Your task to perform on an android device: Open location settings Image 0: 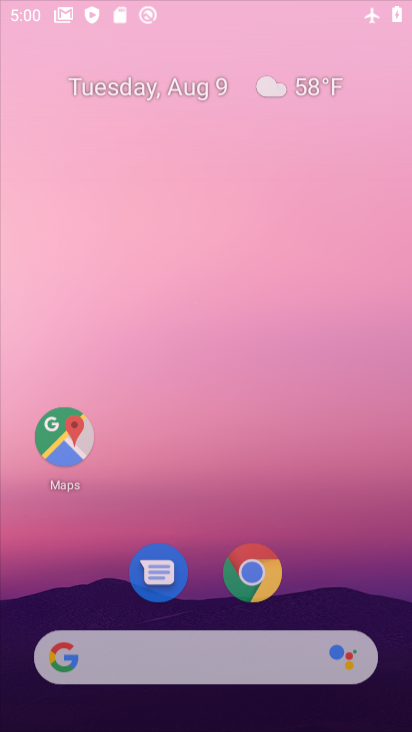
Step 0: press back button
Your task to perform on an android device: Open location settings Image 1: 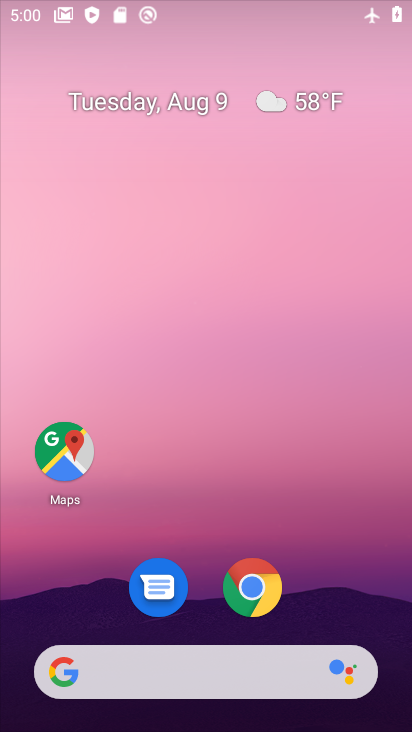
Step 1: click (158, 99)
Your task to perform on an android device: Open location settings Image 2: 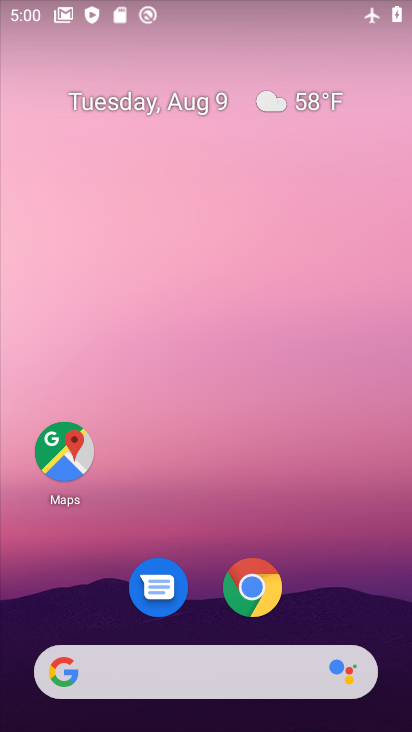
Step 2: drag from (234, 581) to (226, 227)
Your task to perform on an android device: Open location settings Image 3: 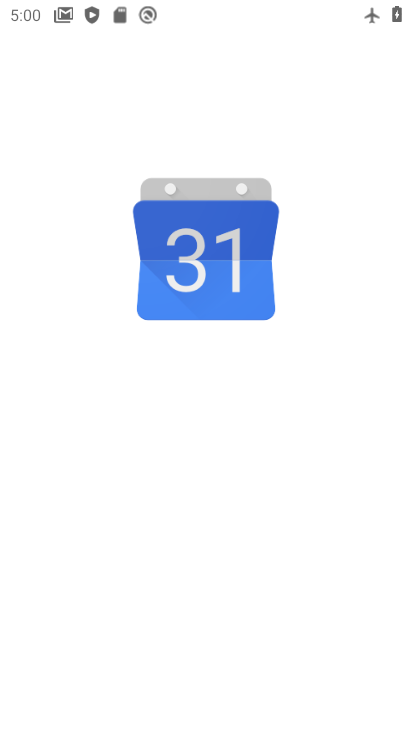
Step 3: drag from (244, 541) to (237, 117)
Your task to perform on an android device: Open location settings Image 4: 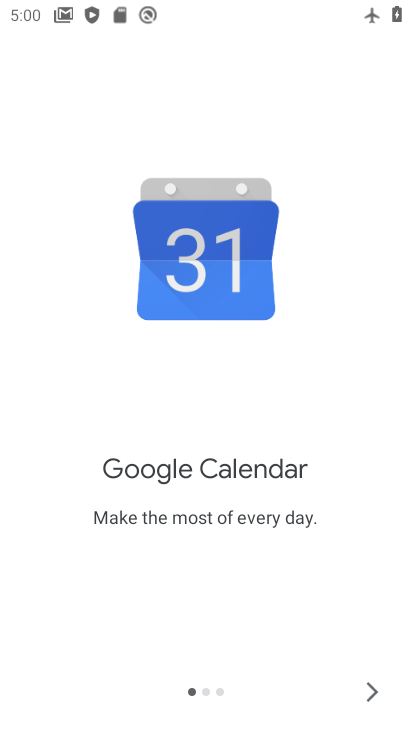
Step 4: press back button
Your task to perform on an android device: Open location settings Image 5: 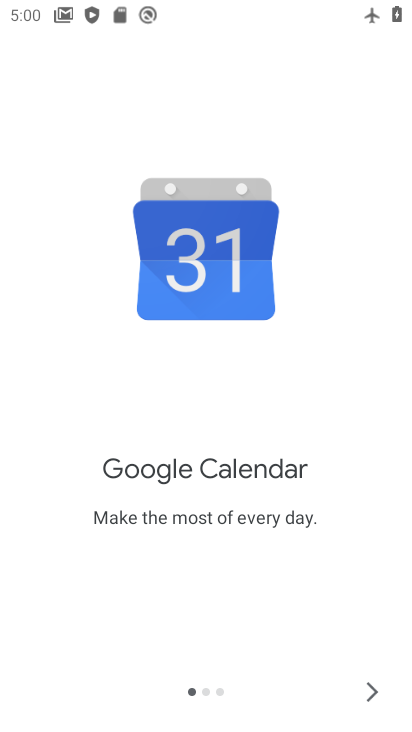
Step 5: press back button
Your task to perform on an android device: Open location settings Image 6: 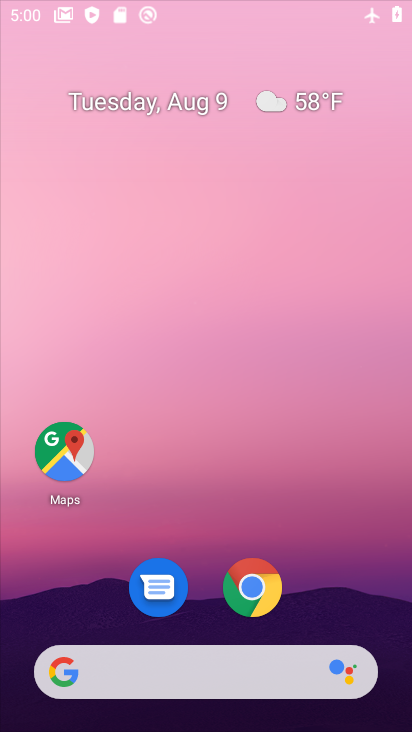
Step 6: press back button
Your task to perform on an android device: Open location settings Image 7: 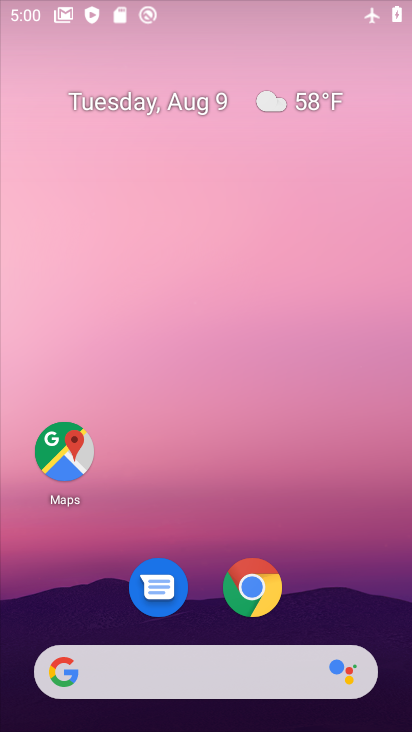
Step 7: press back button
Your task to perform on an android device: Open location settings Image 8: 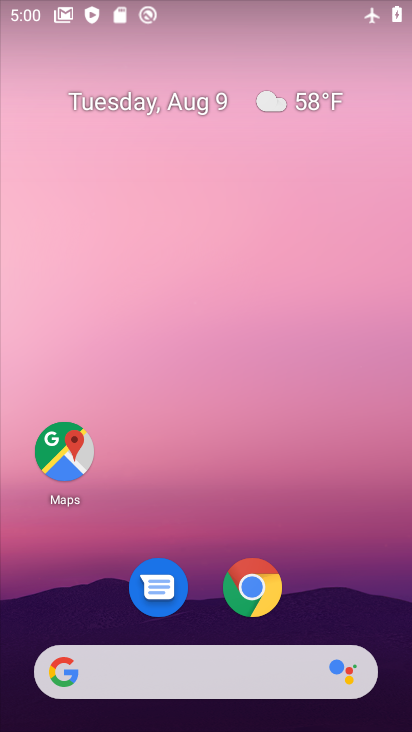
Step 8: drag from (136, 657) to (60, 20)
Your task to perform on an android device: Open location settings Image 9: 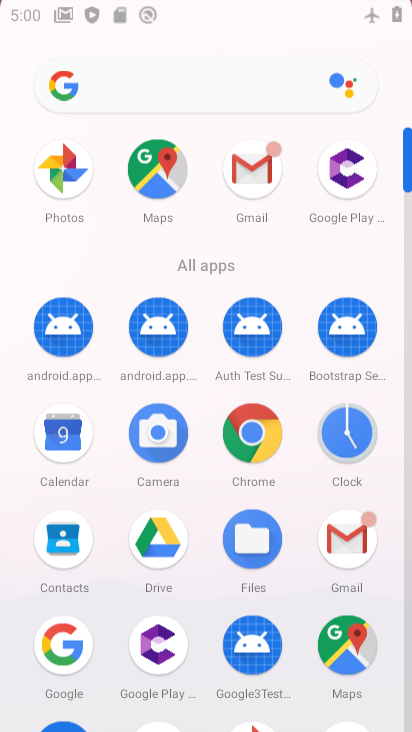
Step 9: drag from (202, 398) to (218, 43)
Your task to perform on an android device: Open location settings Image 10: 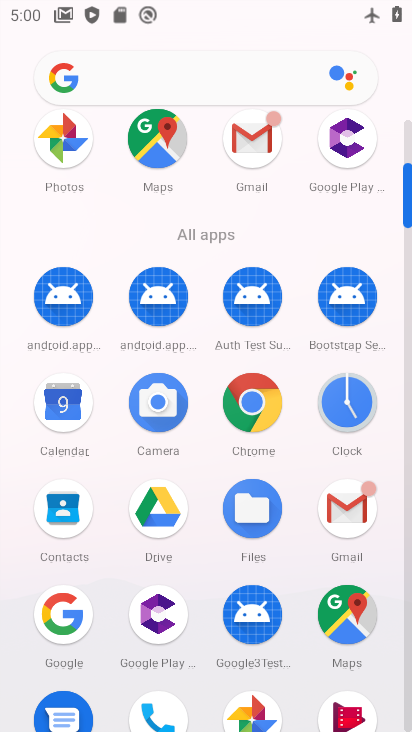
Step 10: click (161, 138)
Your task to perform on an android device: Open location settings Image 11: 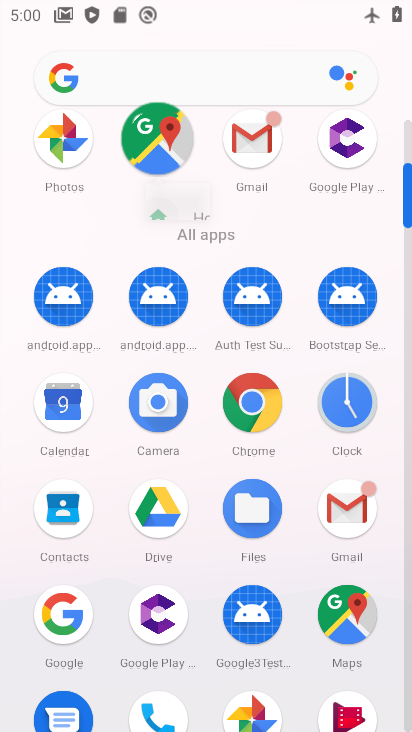
Step 11: click (196, 159)
Your task to perform on an android device: Open location settings Image 12: 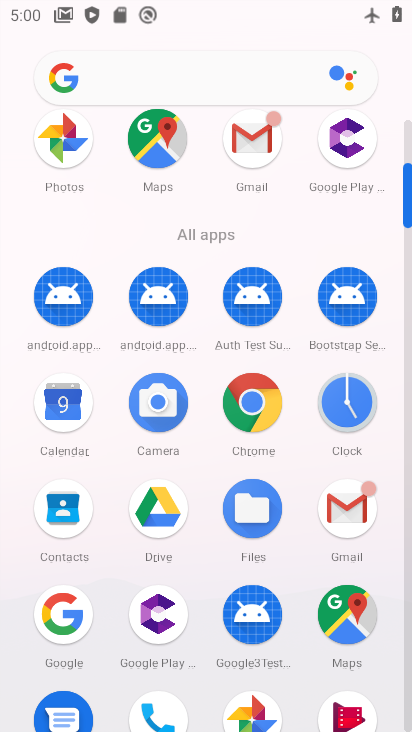
Step 12: click (185, 155)
Your task to perform on an android device: Open location settings Image 13: 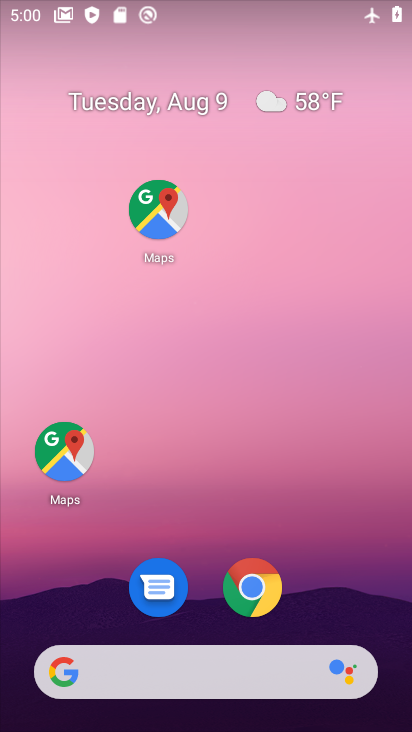
Step 13: click (165, 191)
Your task to perform on an android device: Open location settings Image 14: 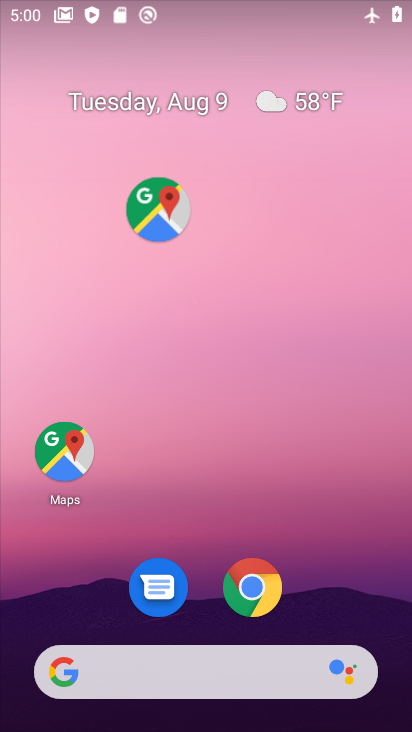
Step 14: click (163, 196)
Your task to perform on an android device: Open location settings Image 15: 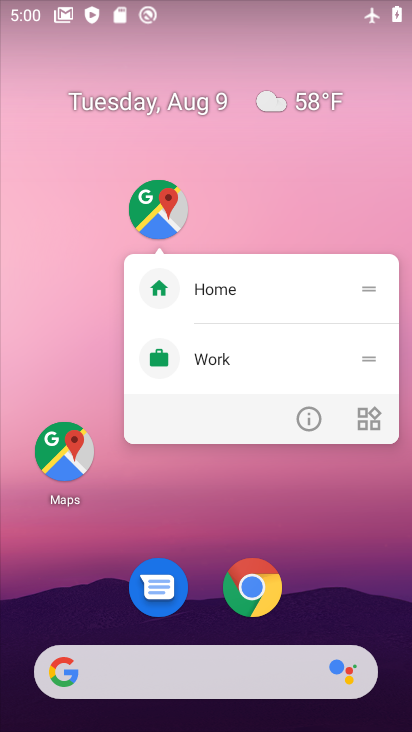
Step 15: click (212, 349)
Your task to perform on an android device: Open location settings Image 16: 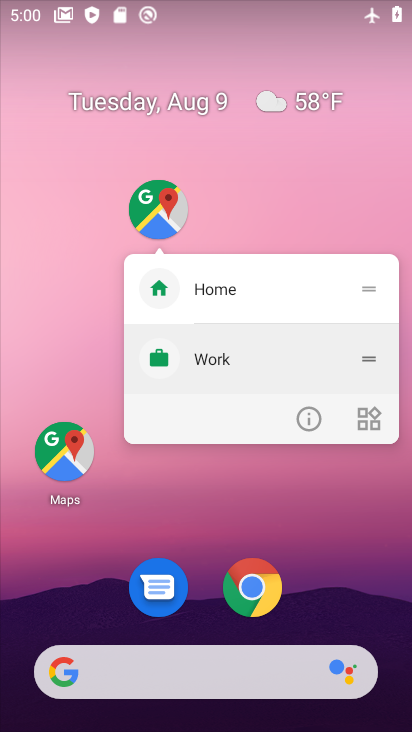
Step 16: click (216, 352)
Your task to perform on an android device: Open location settings Image 17: 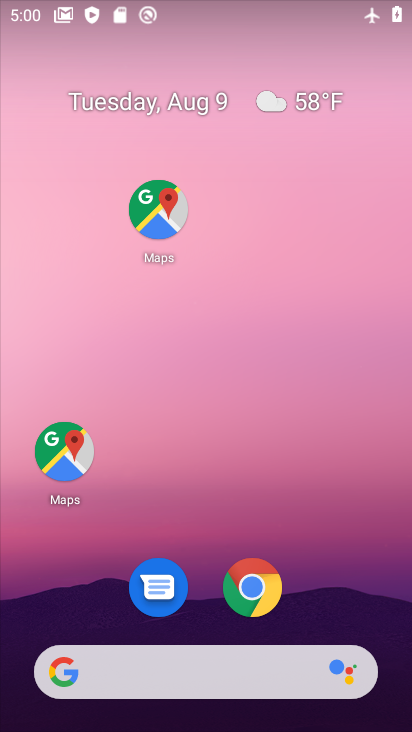
Step 17: click (163, 202)
Your task to perform on an android device: Open location settings Image 18: 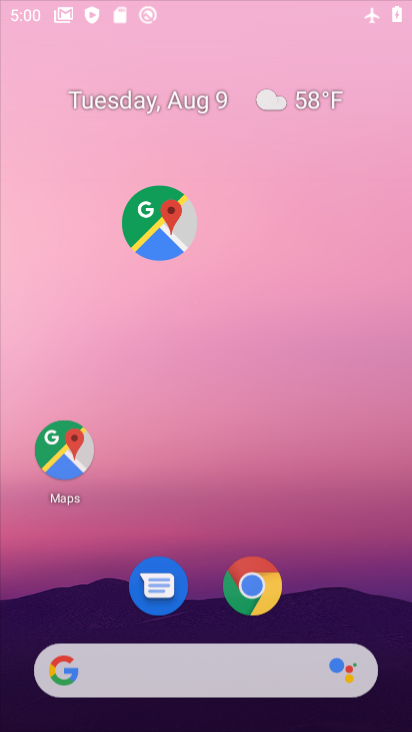
Step 18: click (164, 206)
Your task to perform on an android device: Open location settings Image 19: 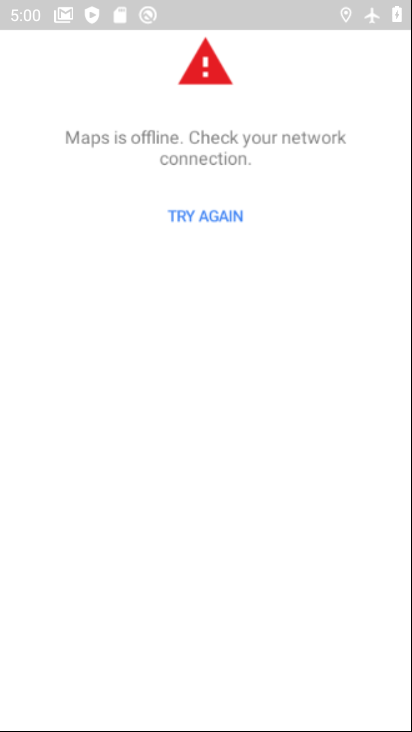
Step 19: click (168, 212)
Your task to perform on an android device: Open location settings Image 20: 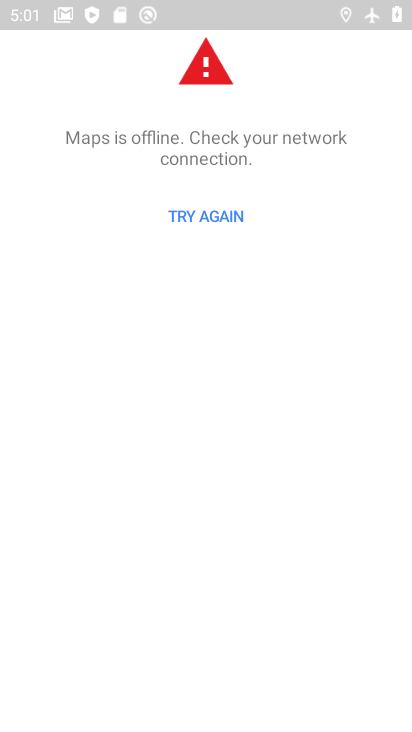
Step 20: task complete